Your task to perform on an android device: Find coffee shops on Maps Image 0: 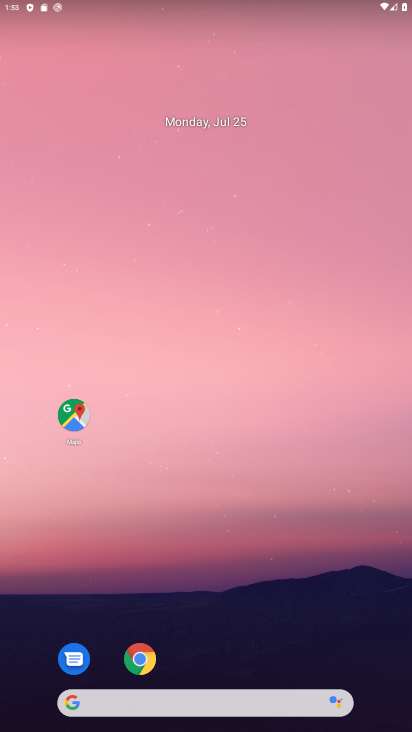
Step 0: click (71, 415)
Your task to perform on an android device: Find coffee shops on Maps Image 1: 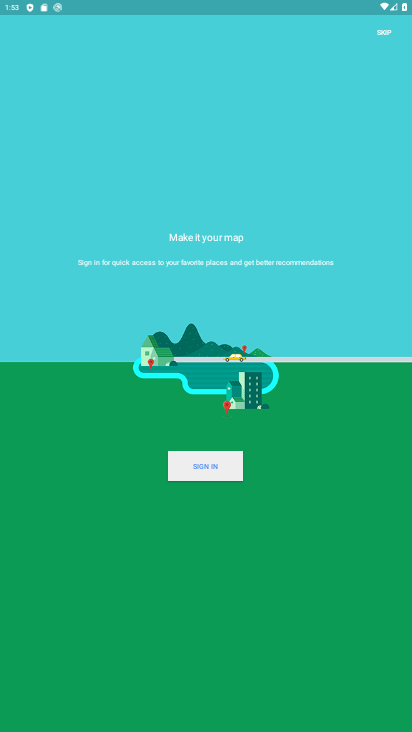
Step 1: click (385, 32)
Your task to perform on an android device: Find coffee shops on Maps Image 2: 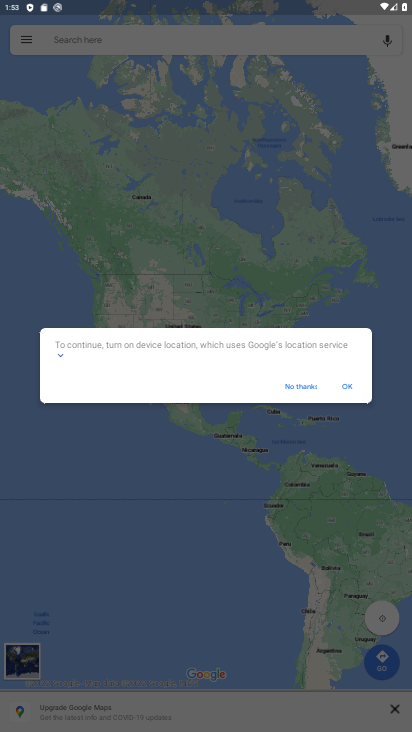
Step 2: click (158, 41)
Your task to perform on an android device: Find coffee shops on Maps Image 3: 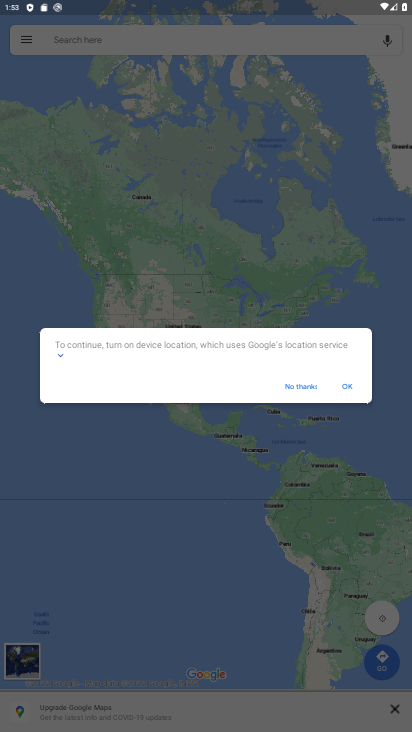
Step 3: click (346, 387)
Your task to perform on an android device: Find coffee shops on Maps Image 4: 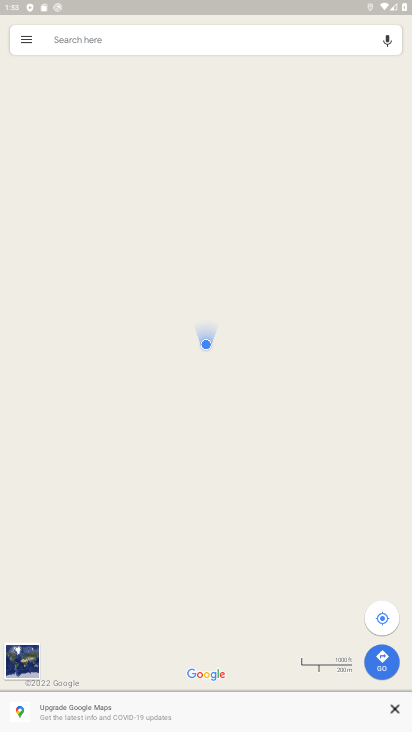
Step 4: click (115, 36)
Your task to perform on an android device: Find coffee shops on Maps Image 5: 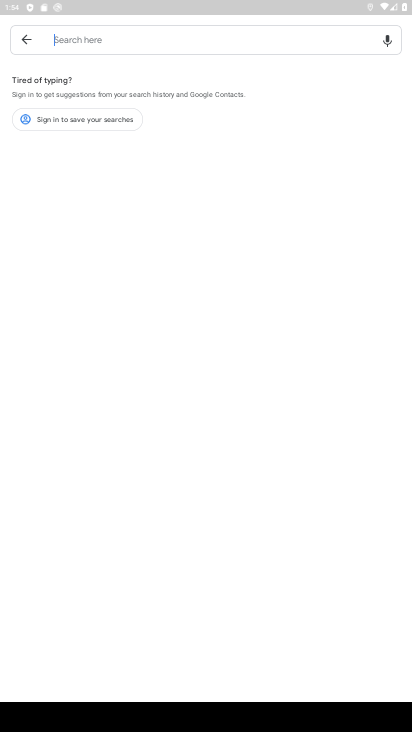
Step 5: type "coffee shops"
Your task to perform on an android device: Find coffee shops on Maps Image 6: 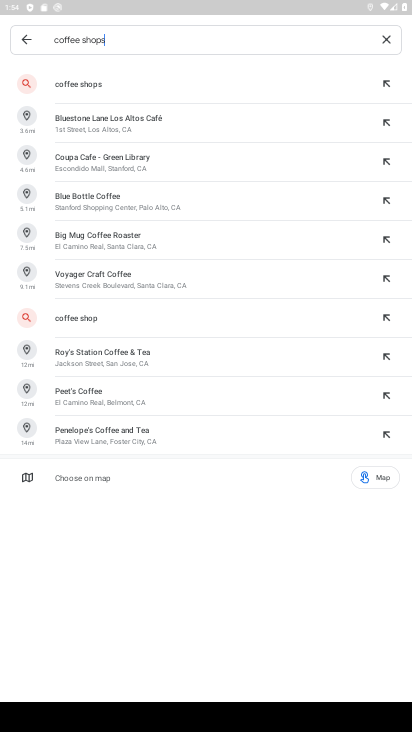
Step 6: click (72, 85)
Your task to perform on an android device: Find coffee shops on Maps Image 7: 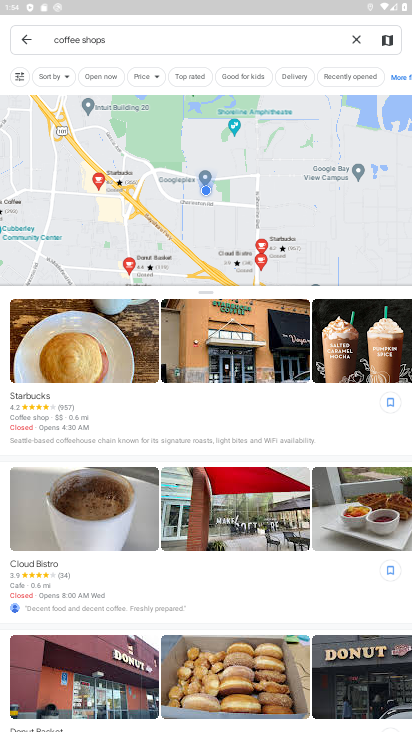
Step 7: task complete